Your task to perform on an android device: toggle priority inbox in the gmail app Image 0: 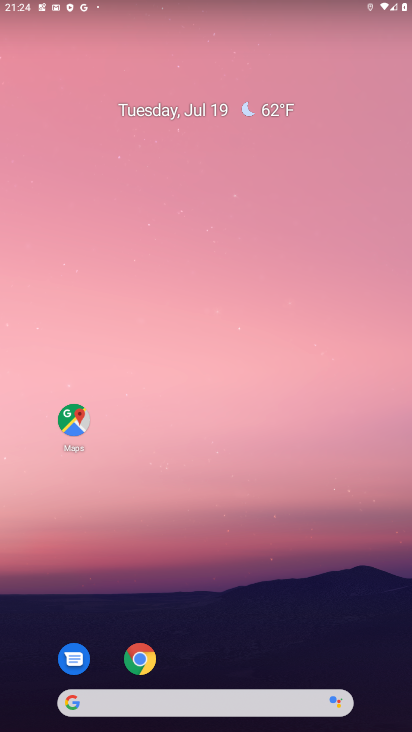
Step 0: press home button
Your task to perform on an android device: toggle priority inbox in the gmail app Image 1: 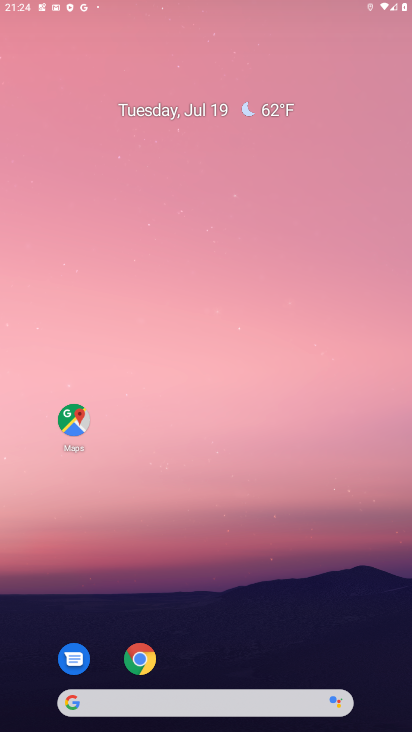
Step 1: drag from (273, 676) to (338, 216)
Your task to perform on an android device: toggle priority inbox in the gmail app Image 2: 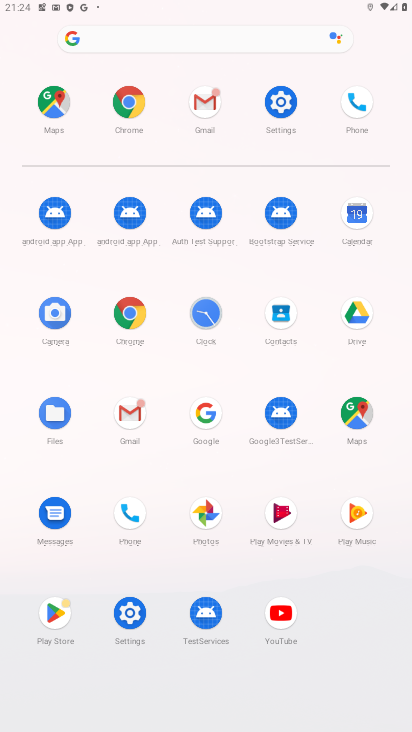
Step 2: click (206, 119)
Your task to perform on an android device: toggle priority inbox in the gmail app Image 3: 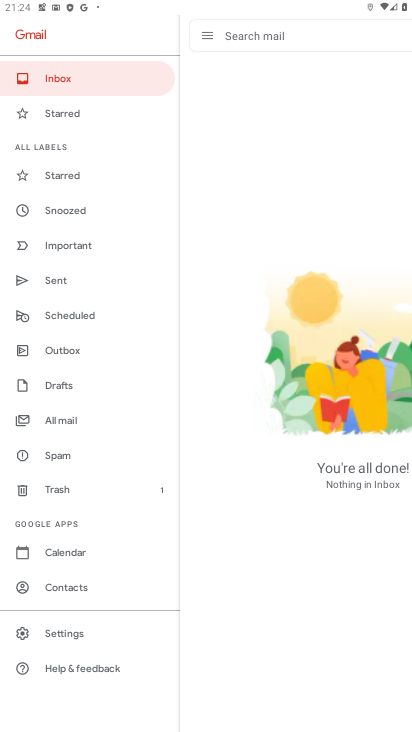
Step 3: click (77, 624)
Your task to perform on an android device: toggle priority inbox in the gmail app Image 4: 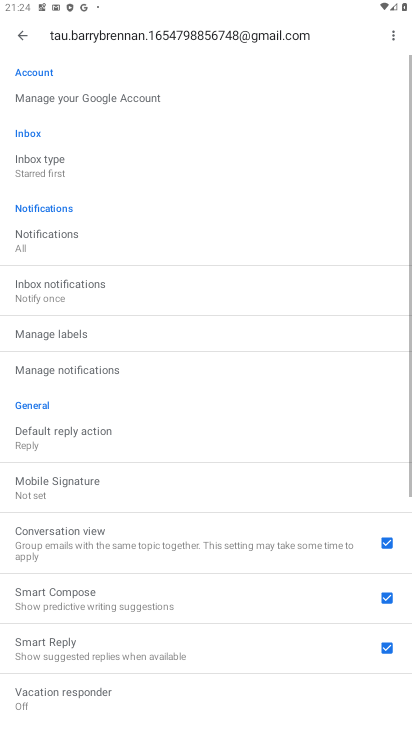
Step 4: click (96, 172)
Your task to perform on an android device: toggle priority inbox in the gmail app Image 5: 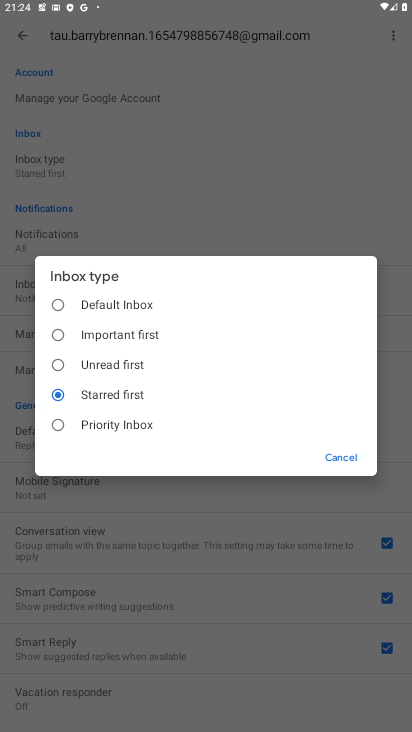
Step 5: click (86, 334)
Your task to perform on an android device: toggle priority inbox in the gmail app Image 6: 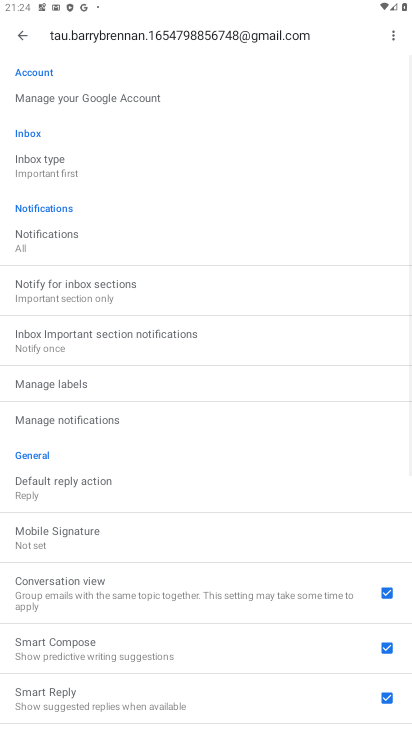
Step 6: task complete